Your task to perform on an android device: check data usage Image 0: 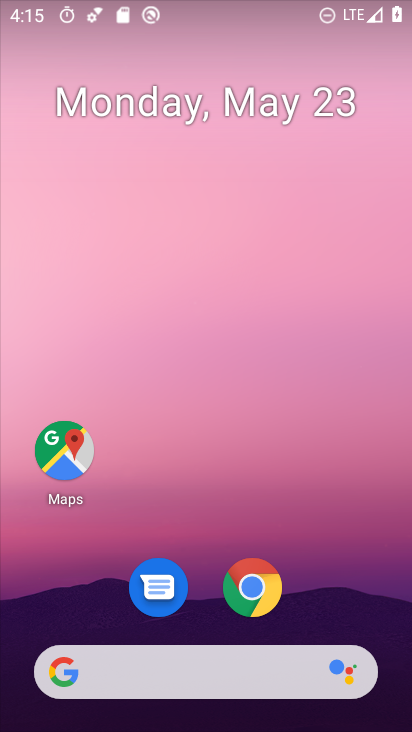
Step 0: drag from (215, 618) to (200, 0)
Your task to perform on an android device: check data usage Image 1: 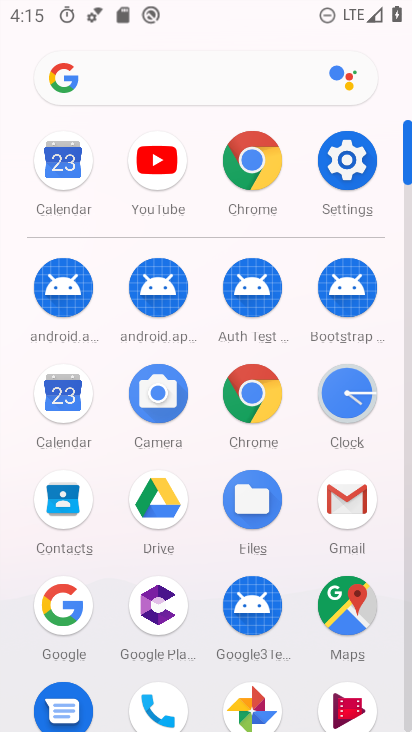
Step 1: click (345, 161)
Your task to perform on an android device: check data usage Image 2: 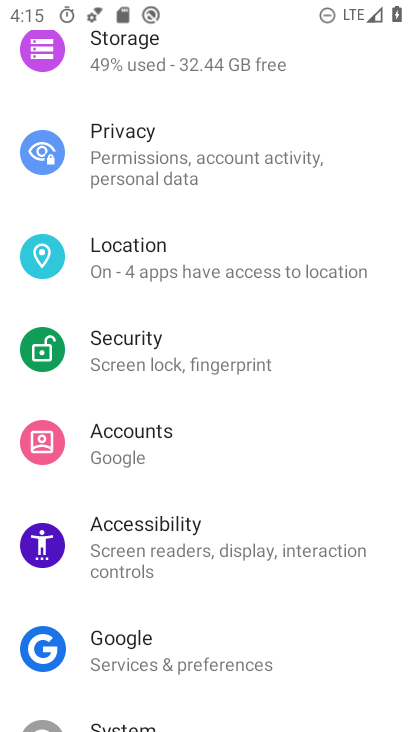
Step 2: drag from (181, 177) to (158, 554)
Your task to perform on an android device: check data usage Image 3: 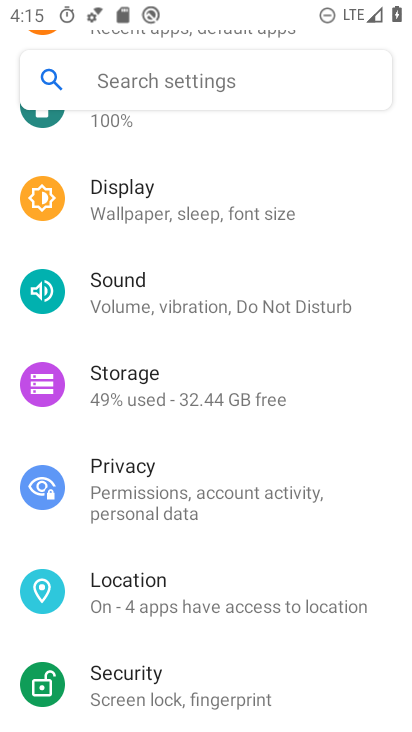
Step 3: drag from (165, 226) to (181, 731)
Your task to perform on an android device: check data usage Image 4: 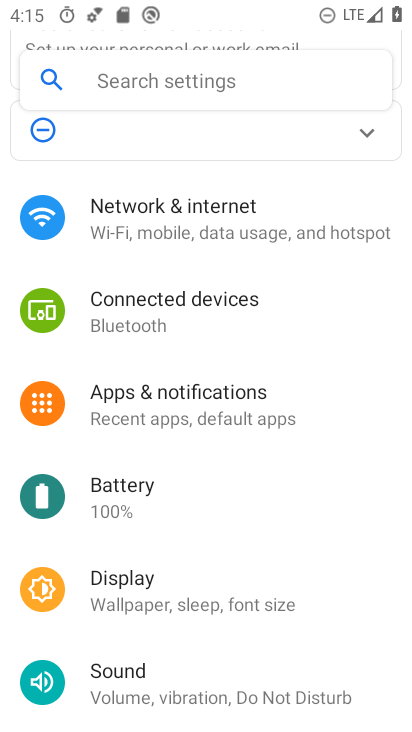
Step 4: click (247, 227)
Your task to perform on an android device: check data usage Image 5: 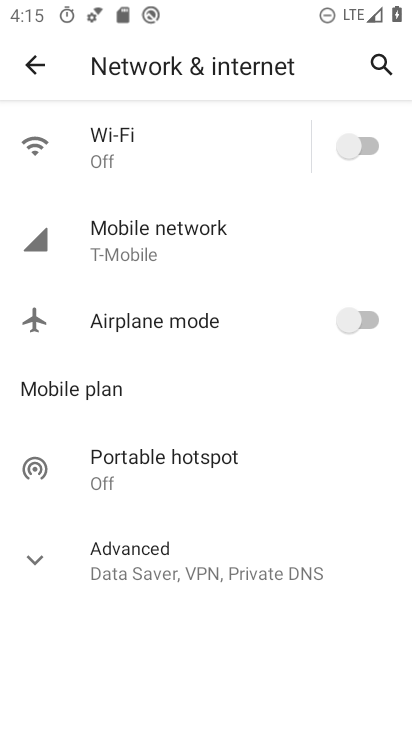
Step 5: click (196, 249)
Your task to perform on an android device: check data usage Image 6: 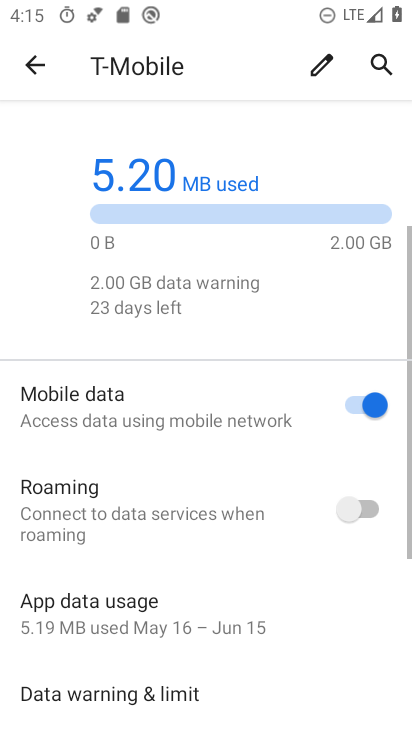
Step 6: drag from (226, 540) to (224, 346)
Your task to perform on an android device: check data usage Image 7: 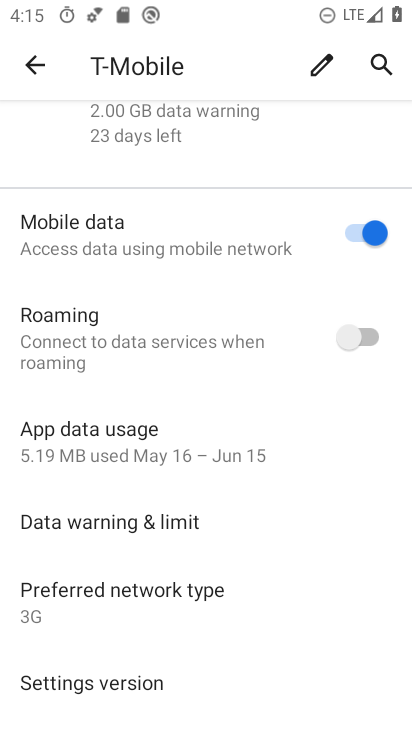
Step 7: click (153, 451)
Your task to perform on an android device: check data usage Image 8: 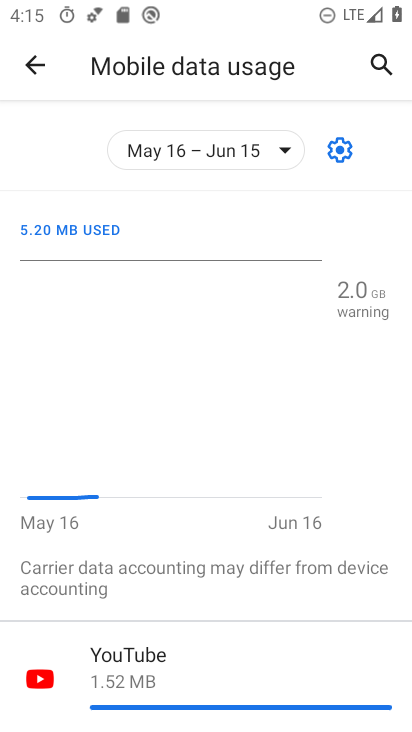
Step 8: task complete